Your task to perform on an android device: change notification settings in the gmail app Image 0: 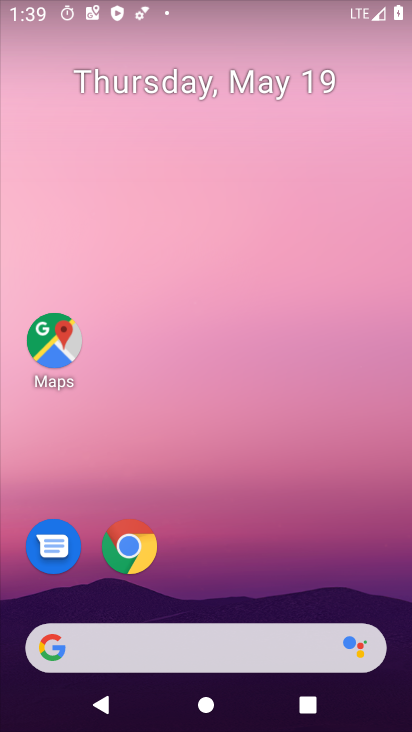
Step 0: drag from (183, 582) to (267, 3)
Your task to perform on an android device: change notification settings in the gmail app Image 1: 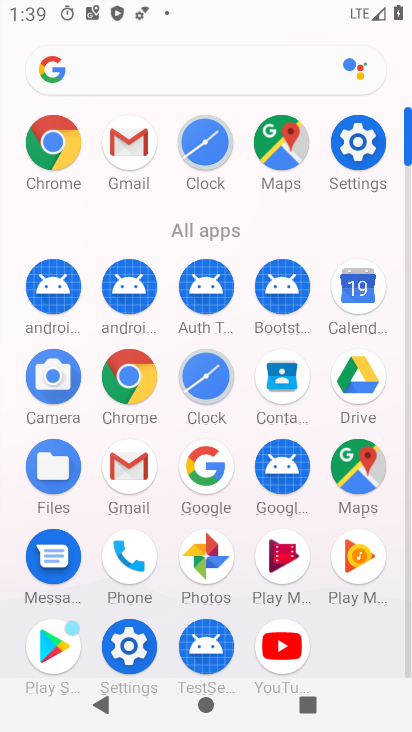
Step 1: click (130, 161)
Your task to perform on an android device: change notification settings in the gmail app Image 2: 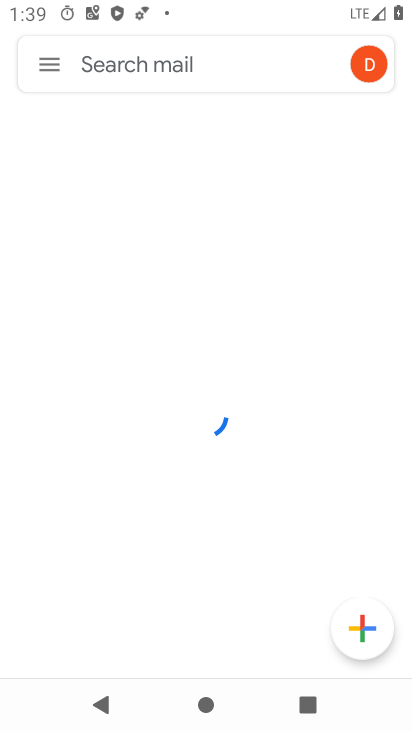
Step 2: click (48, 65)
Your task to perform on an android device: change notification settings in the gmail app Image 3: 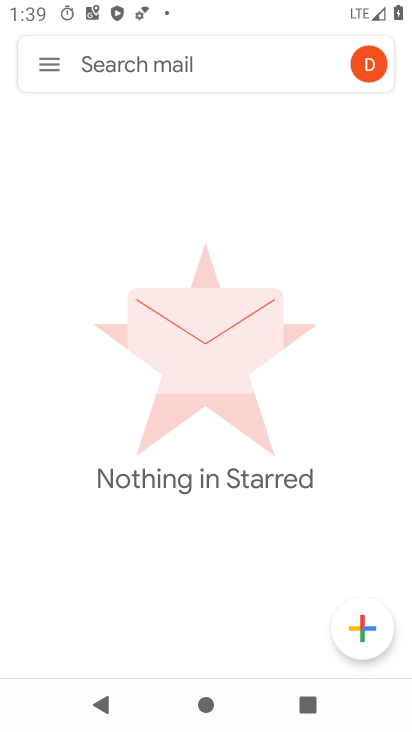
Step 3: click (43, 59)
Your task to perform on an android device: change notification settings in the gmail app Image 4: 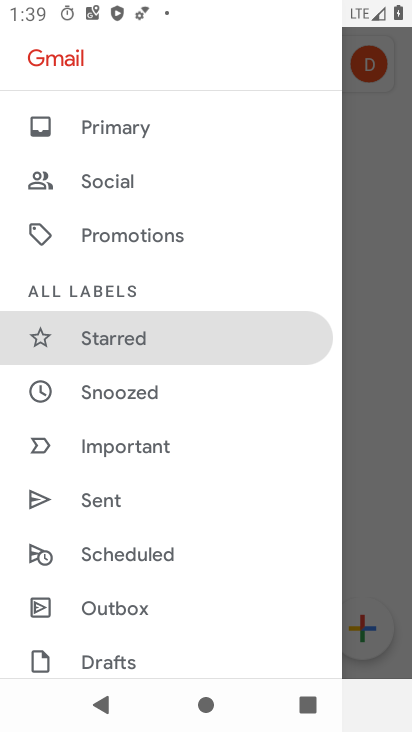
Step 4: drag from (112, 633) to (238, 223)
Your task to perform on an android device: change notification settings in the gmail app Image 5: 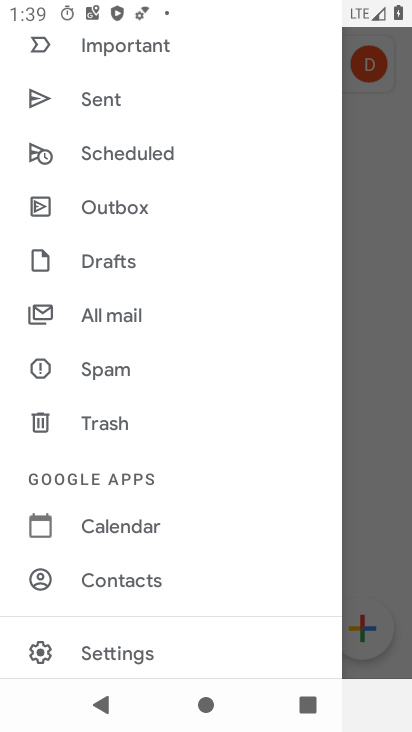
Step 5: click (66, 649)
Your task to perform on an android device: change notification settings in the gmail app Image 6: 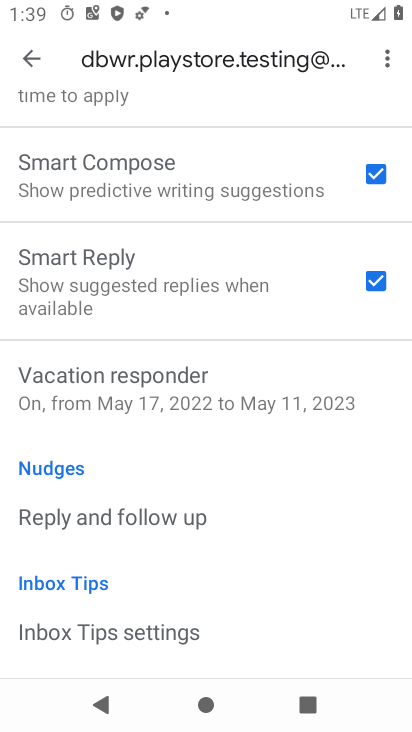
Step 6: drag from (285, 162) to (285, 639)
Your task to perform on an android device: change notification settings in the gmail app Image 7: 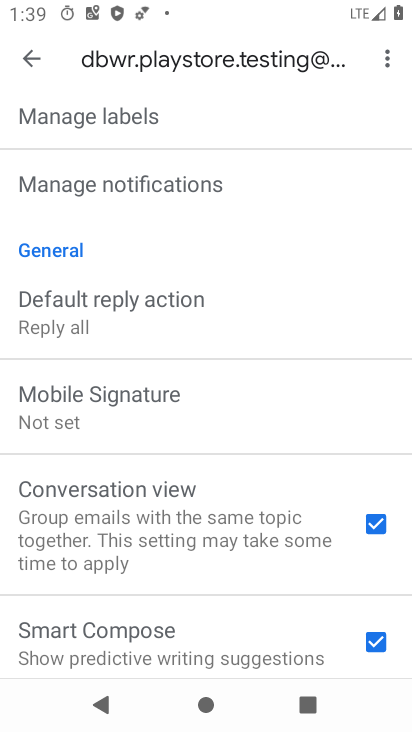
Step 7: drag from (186, 224) to (190, 604)
Your task to perform on an android device: change notification settings in the gmail app Image 8: 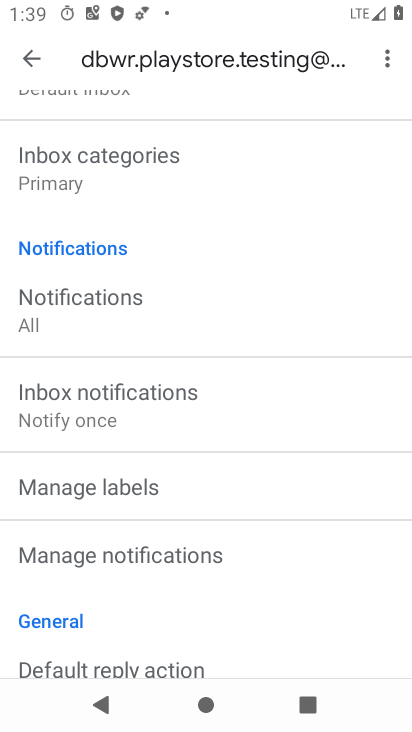
Step 8: click (103, 338)
Your task to perform on an android device: change notification settings in the gmail app Image 9: 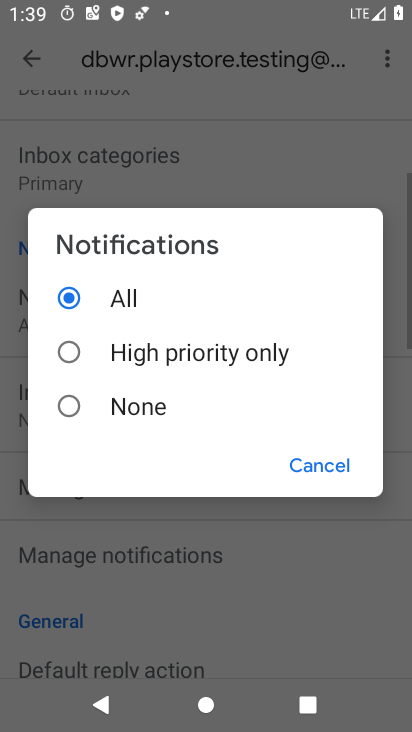
Step 9: click (144, 370)
Your task to perform on an android device: change notification settings in the gmail app Image 10: 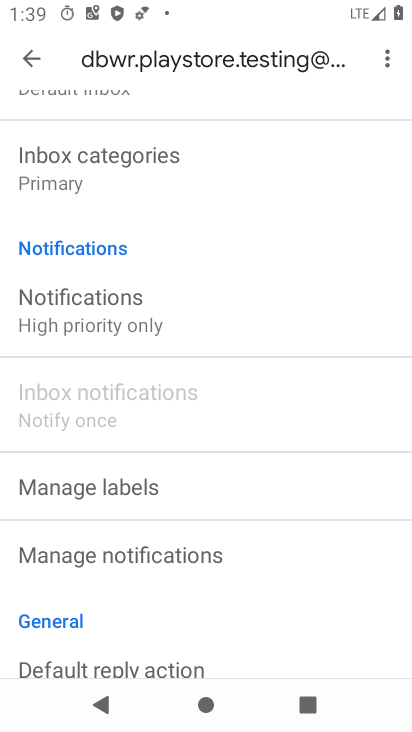
Step 10: task complete